Your task to perform on an android device: turn off notifications in google photos Image 0: 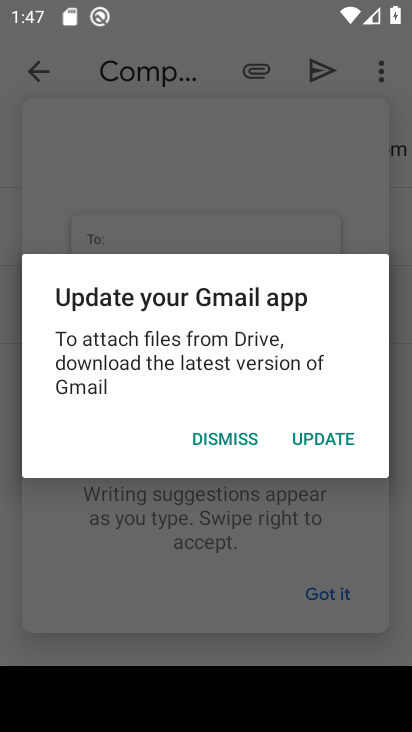
Step 0: click (235, 425)
Your task to perform on an android device: turn off notifications in google photos Image 1: 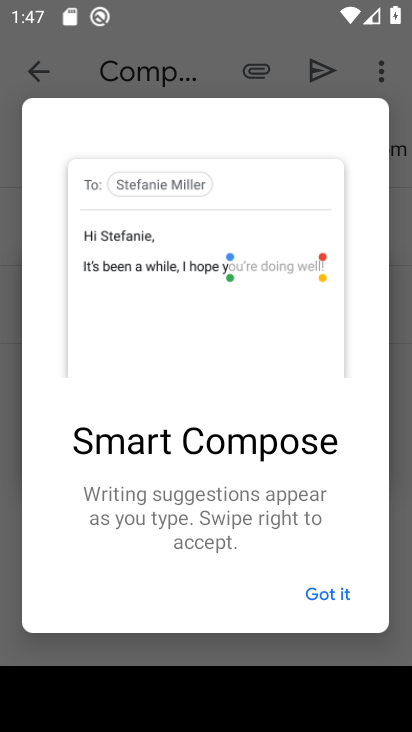
Step 1: press home button
Your task to perform on an android device: turn off notifications in google photos Image 2: 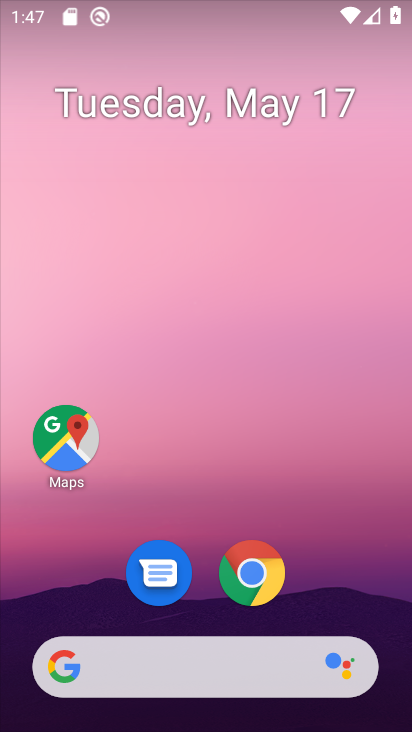
Step 2: drag from (241, 619) to (177, 37)
Your task to perform on an android device: turn off notifications in google photos Image 3: 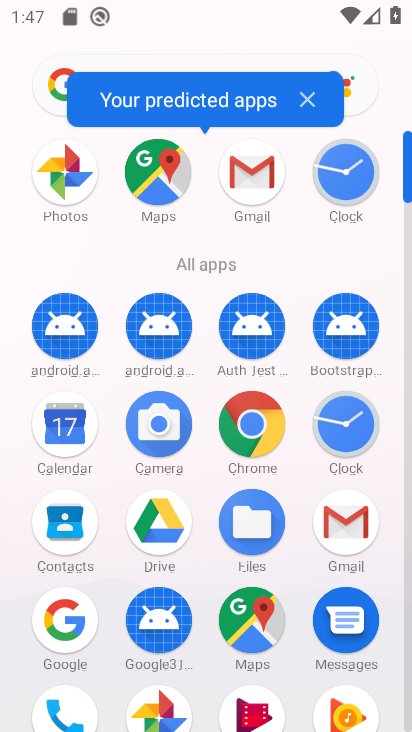
Step 3: click (150, 697)
Your task to perform on an android device: turn off notifications in google photos Image 4: 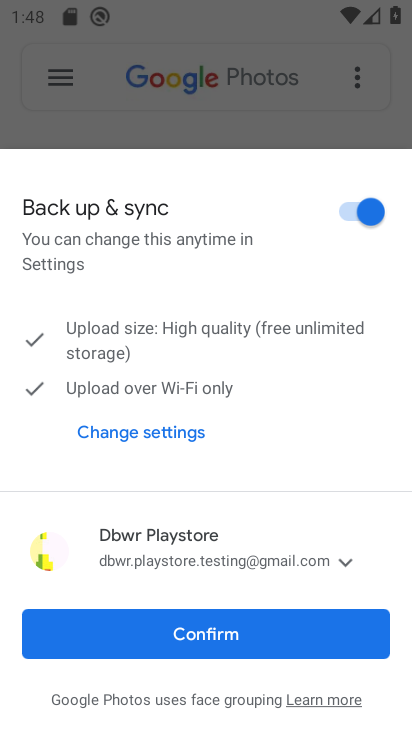
Step 4: click (62, 606)
Your task to perform on an android device: turn off notifications in google photos Image 5: 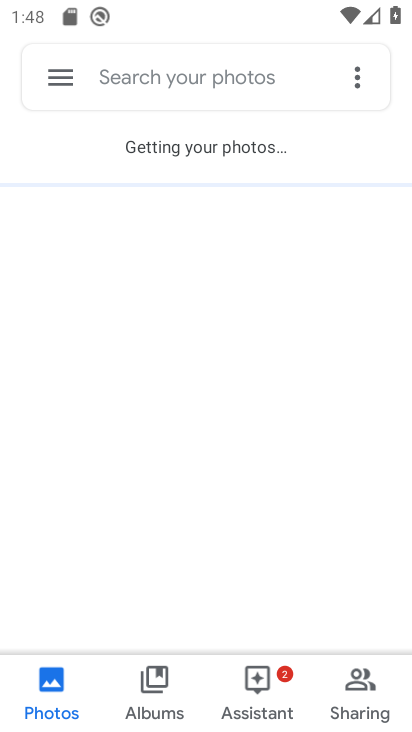
Step 5: click (27, 82)
Your task to perform on an android device: turn off notifications in google photos Image 6: 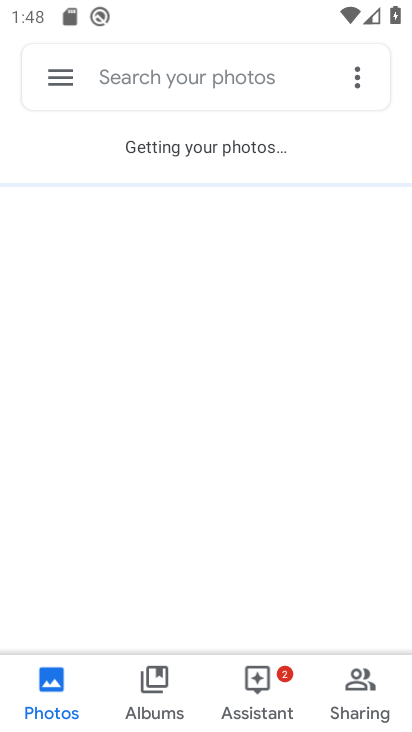
Step 6: click (42, 85)
Your task to perform on an android device: turn off notifications in google photos Image 7: 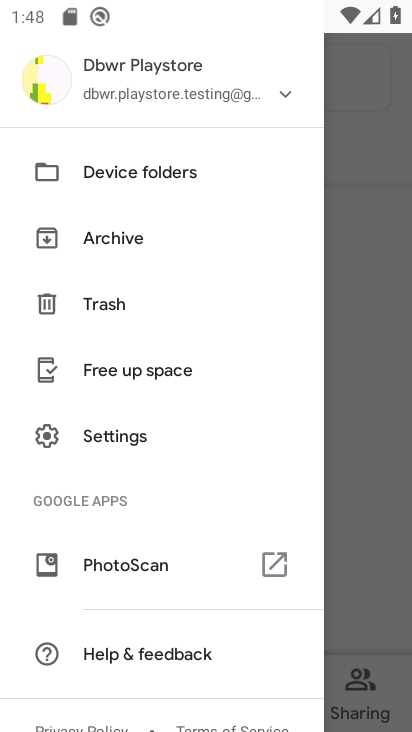
Step 7: click (82, 413)
Your task to perform on an android device: turn off notifications in google photos Image 8: 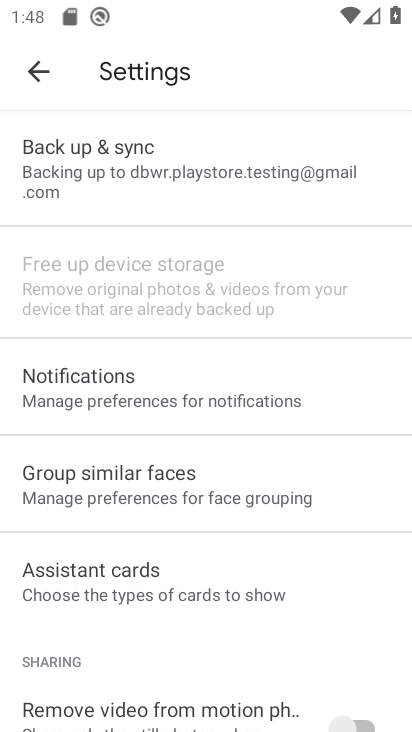
Step 8: click (75, 384)
Your task to perform on an android device: turn off notifications in google photos Image 9: 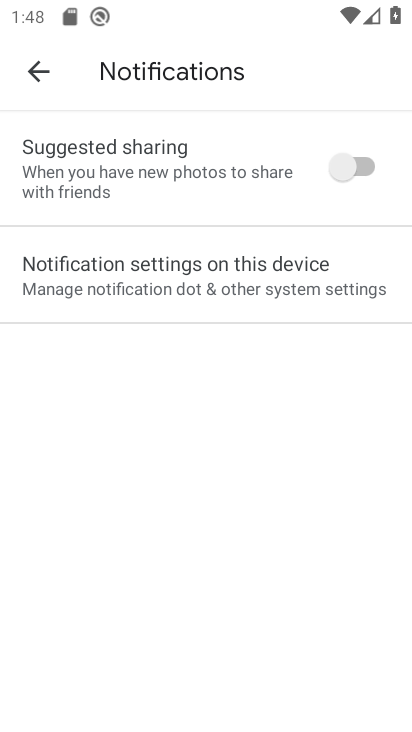
Step 9: click (271, 303)
Your task to perform on an android device: turn off notifications in google photos Image 10: 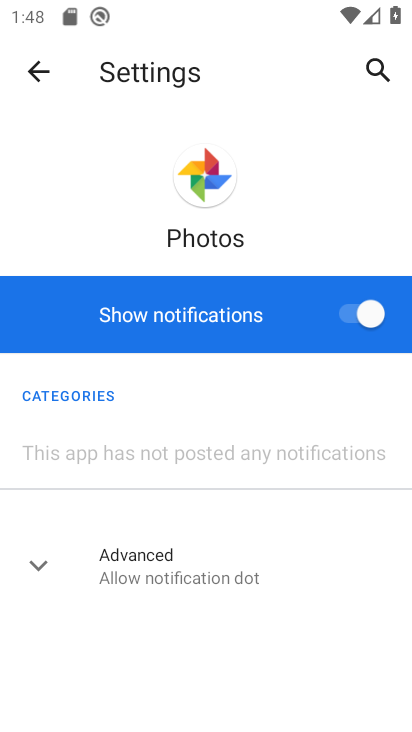
Step 10: click (355, 323)
Your task to perform on an android device: turn off notifications in google photos Image 11: 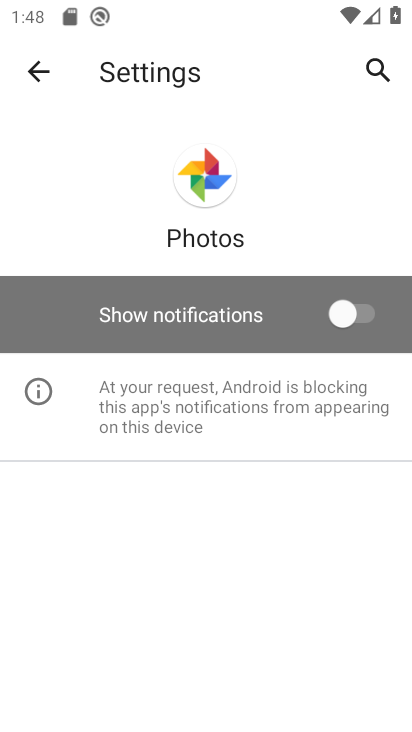
Step 11: task complete